Your task to perform on an android device: set an alarm Image 0: 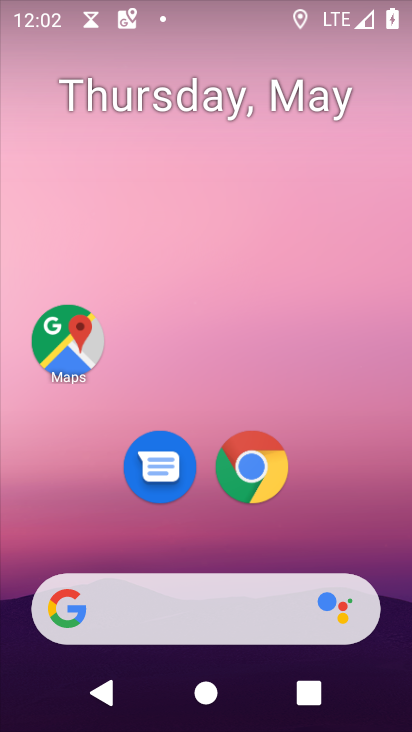
Step 0: press home button
Your task to perform on an android device: set an alarm Image 1: 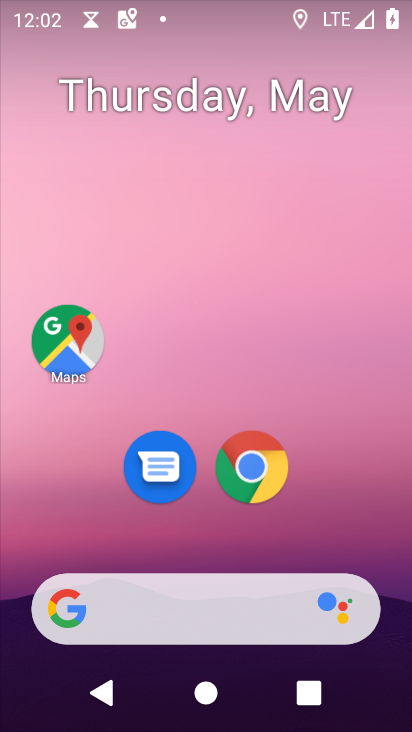
Step 1: drag from (194, 618) to (339, 87)
Your task to perform on an android device: set an alarm Image 2: 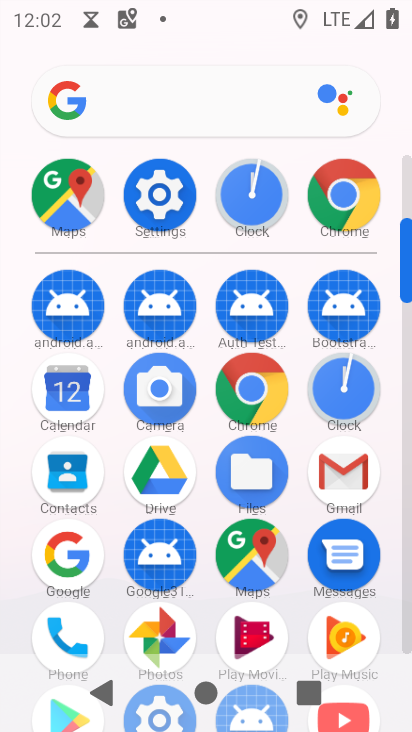
Step 2: click (244, 195)
Your task to perform on an android device: set an alarm Image 3: 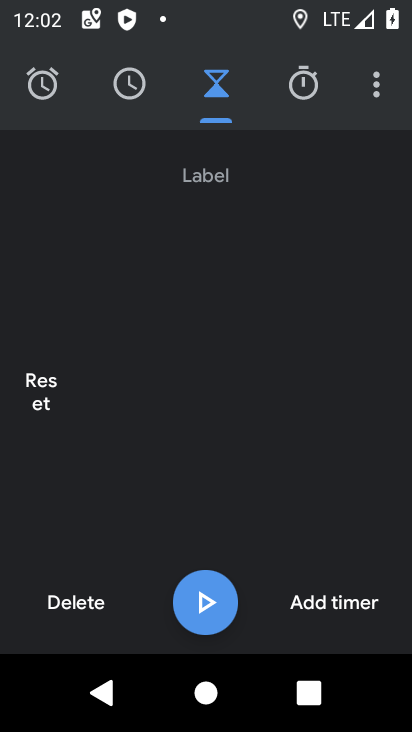
Step 3: click (48, 87)
Your task to perform on an android device: set an alarm Image 4: 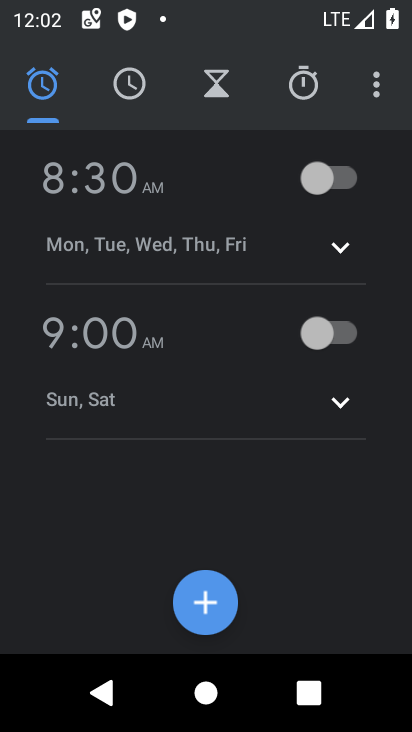
Step 4: click (89, 176)
Your task to perform on an android device: set an alarm Image 5: 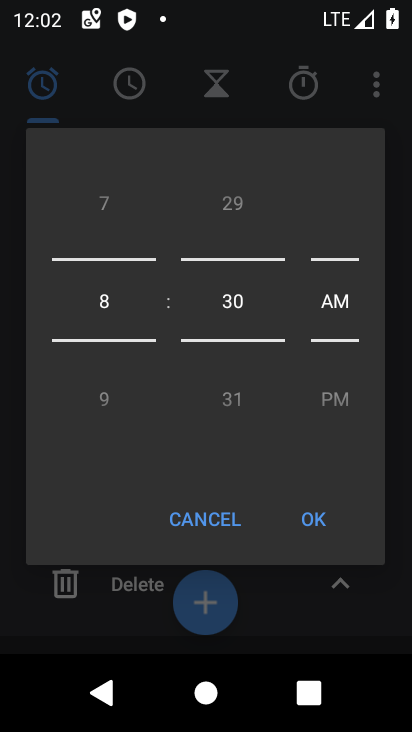
Step 5: drag from (104, 280) to (59, 449)
Your task to perform on an android device: set an alarm Image 6: 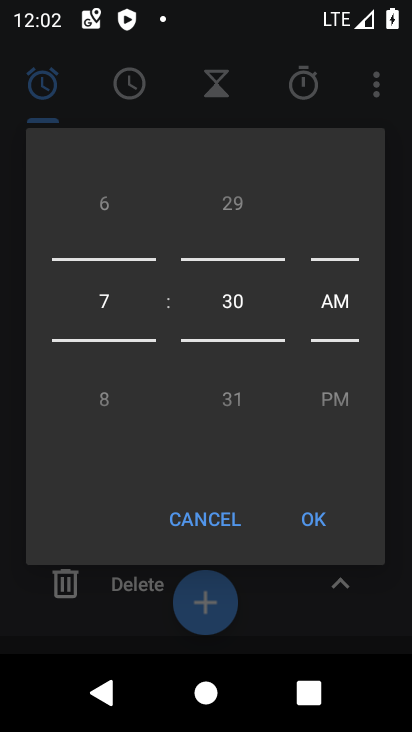
Step 6: drag from (334, 385) to (364, 202)
Your task to perform on an android device: set an alarm Image 7: 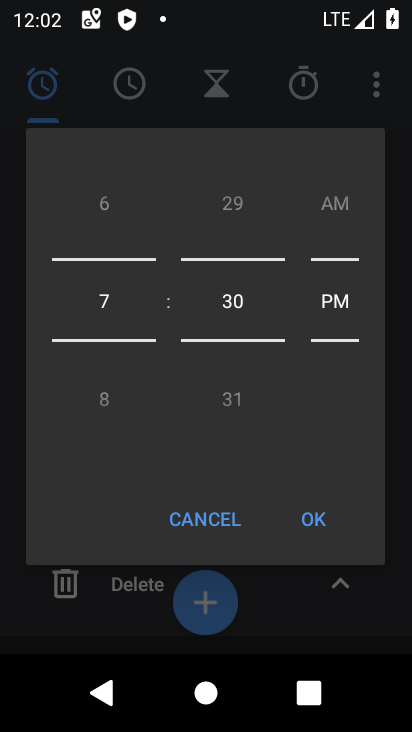
Step 7: click (311, 525)
Your task to perform on an android device: set an alarm Image 8: 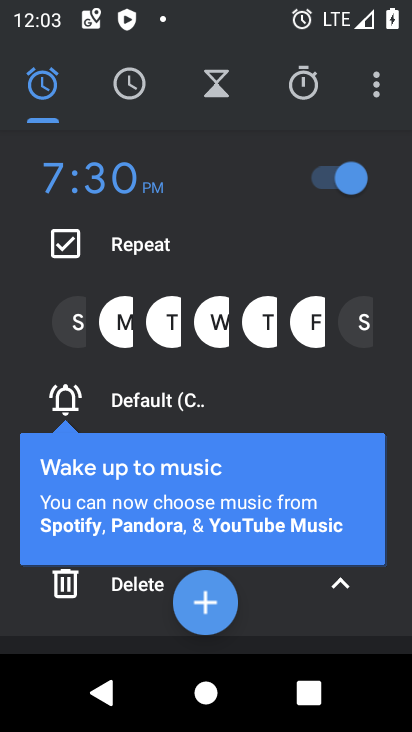
Step 8: task complete